Your task to perform on an android device: open device folders in google photos Image 0: 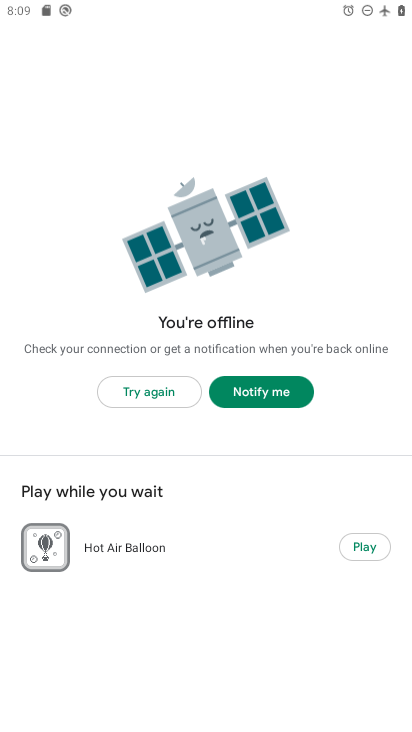
Step 0: press home button
Your task to perform on an android device: open device folders in google photos Image 1: 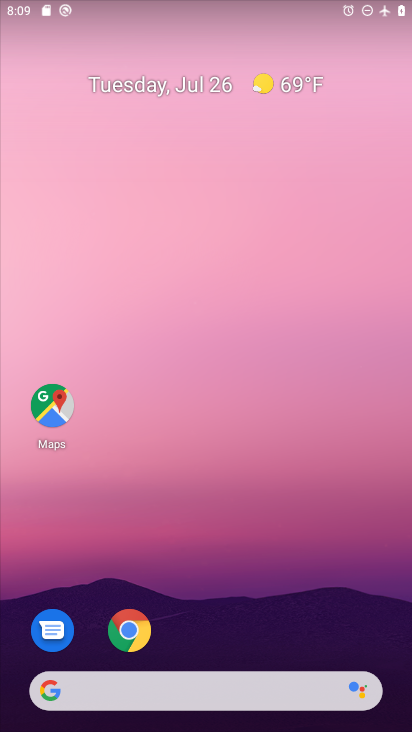
Step 1: drag from (260, 583) to (238, 100)
Your task to perform on an android device: open device folders in google photos Image 2: 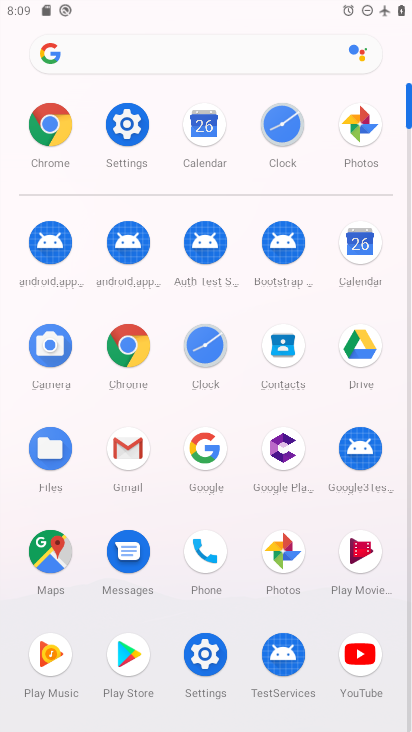
Step 2: click (277, 552)
Your task to perform on an android device: open device folders in google photos Image 3: 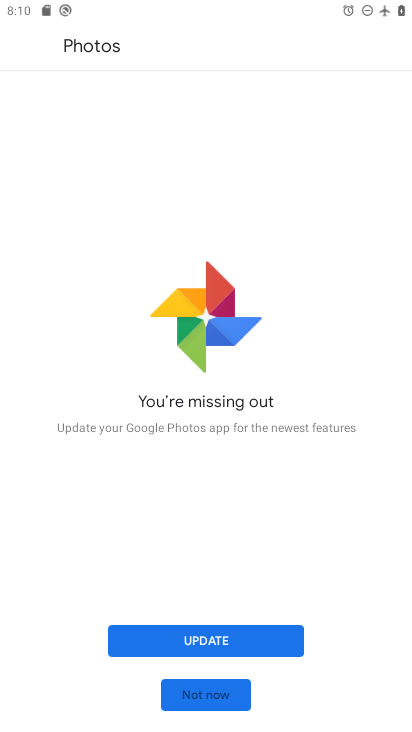
Step 3: click (270, 636)
Your task to perform on an android device: open device folders in google photos Image 4: 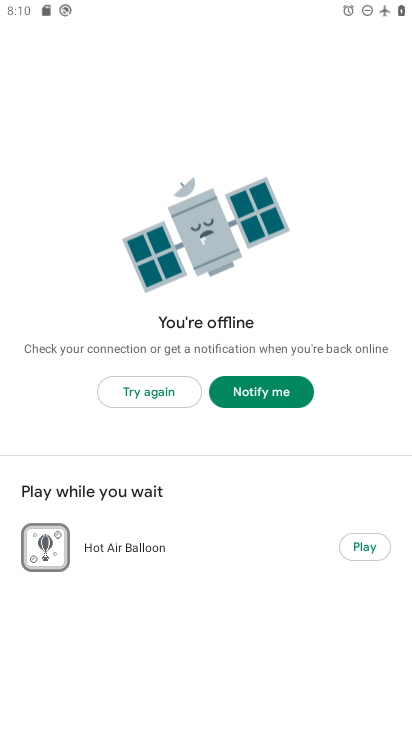
Step 4: task complete